Your task to perform on an android device: add a contact Image 0: 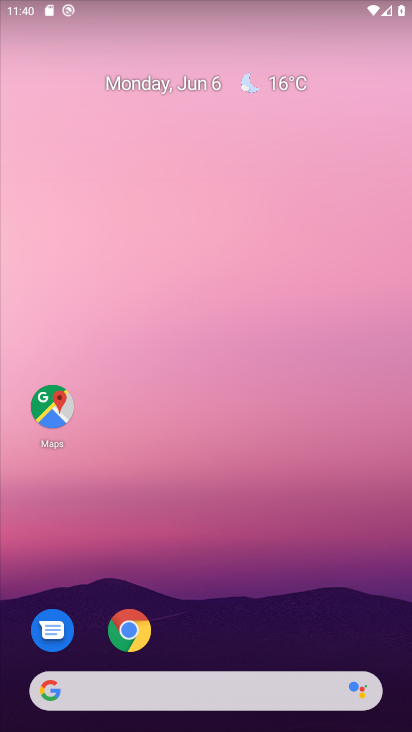
Step 0: drag from (389, 638) to (233, 71)
Your task to perform on an android device: add a contact Image 1: 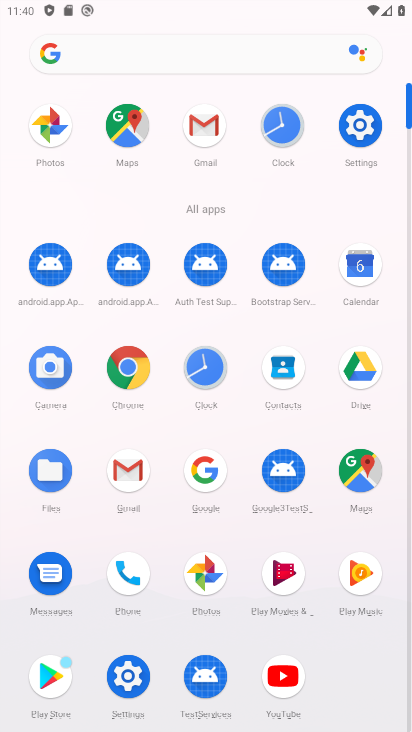
Step 1: click (280, 358)
Your task to perform on an android device: add a contact Image 2: 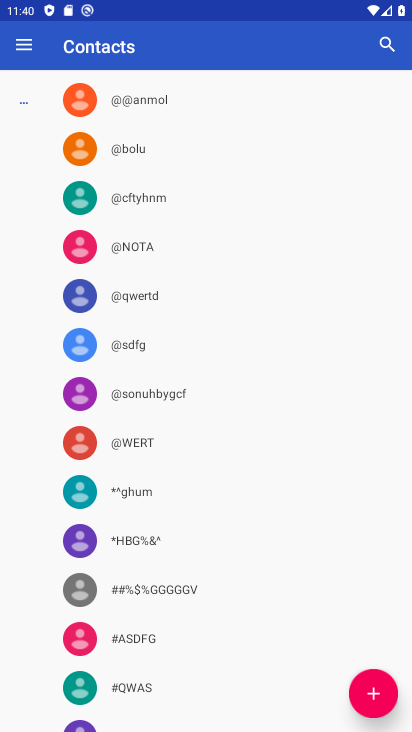
Step 2: click (376, 681)
Your task to perform on an android device: add a contact Image 3: 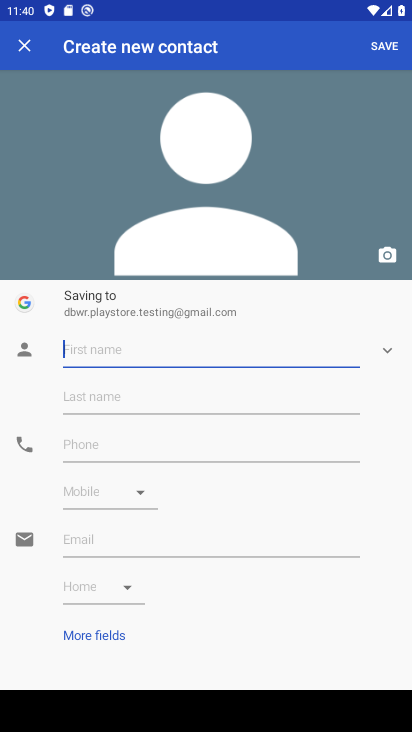
Step 3: type "ullu"
Your task to perform on an android device: add a contact Image 4: 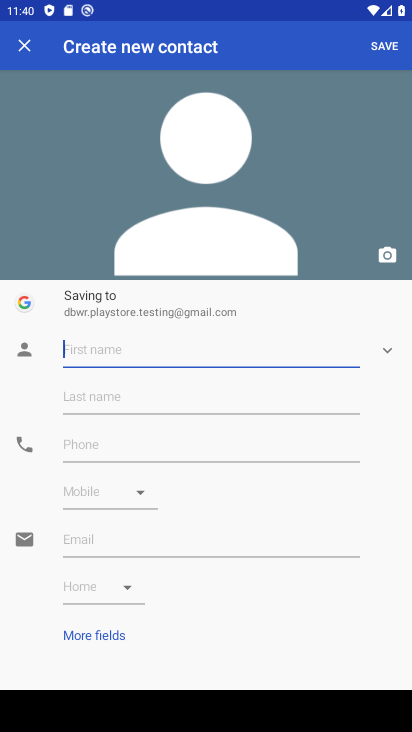
Step 4: click (383, 54)
Your task to perform on an android device: add a contact Image 5: 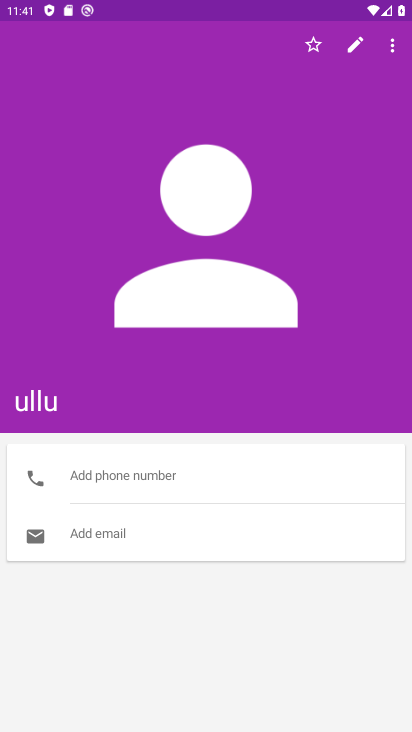
Step 5: task complete